Your task to perform on an android device: turn on javascript in the chrome app Image 0: 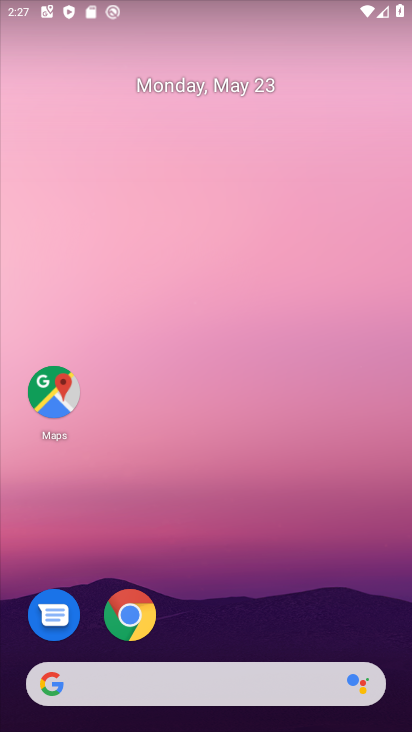
Step 0: click (135, 616)
Your task to perform on an android device: turn on javascript in the chrome app Image 1: 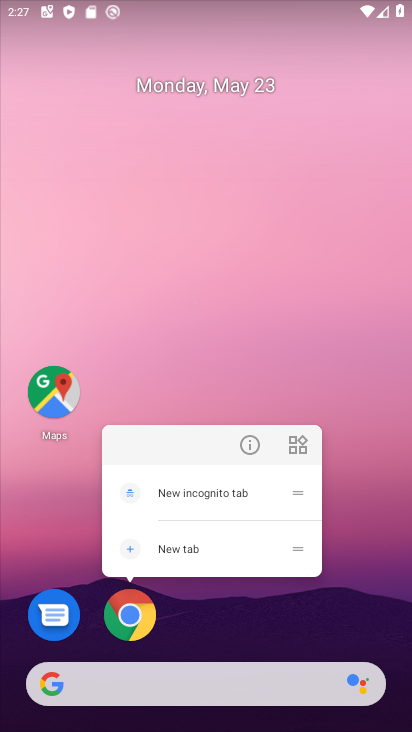
Step 1: click (129, 618)
Your task to perform on an android device: turn on javascript in the chrome app Image 2: 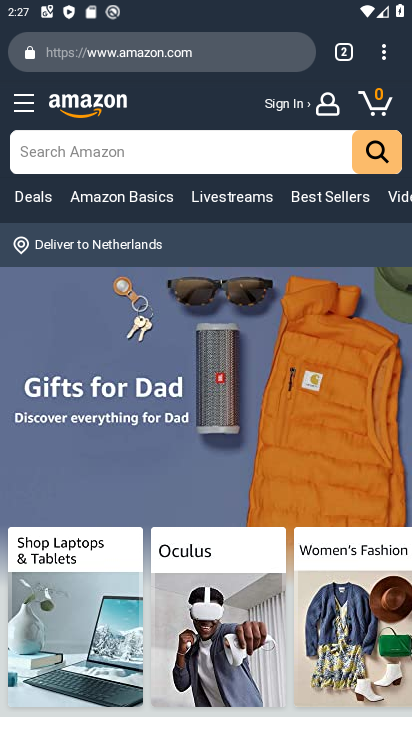
Step 2: click (385, 61)
Your task to perform on an android device: turn on javascript in the chrome app Image 3: 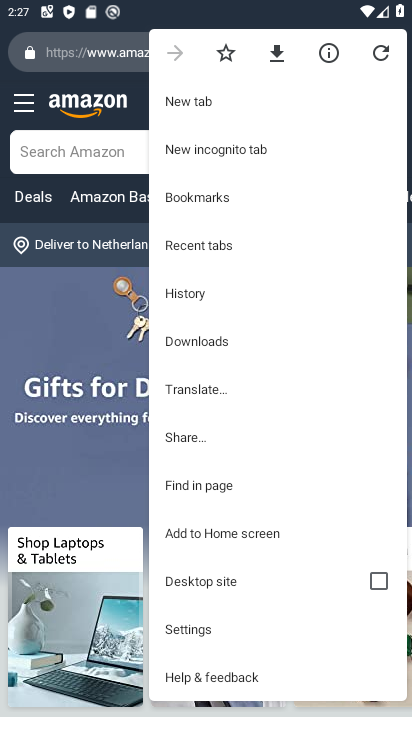
Step 3: click (196, 632)
Your task to perform on an android device: turn on javascript in the chrome app Image 4: 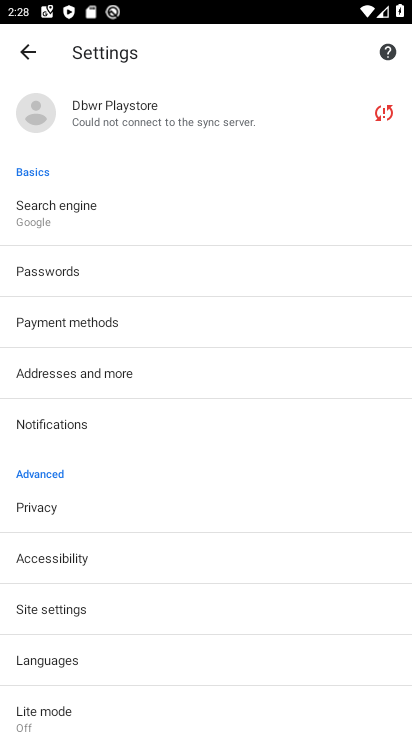
Step 4: click (72, 604)
Your task to perform on an android device: turn on javascript in the chrome app Image 5: 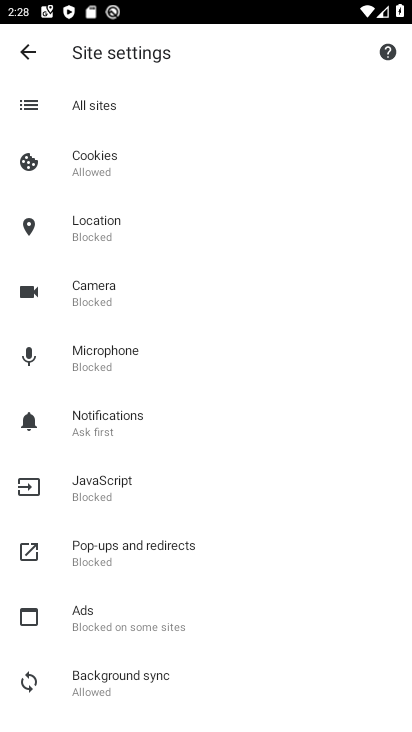
Step 5: click (108, 493)
Your task to perform on an android device: turn on javascript in the chrome app Image 6: 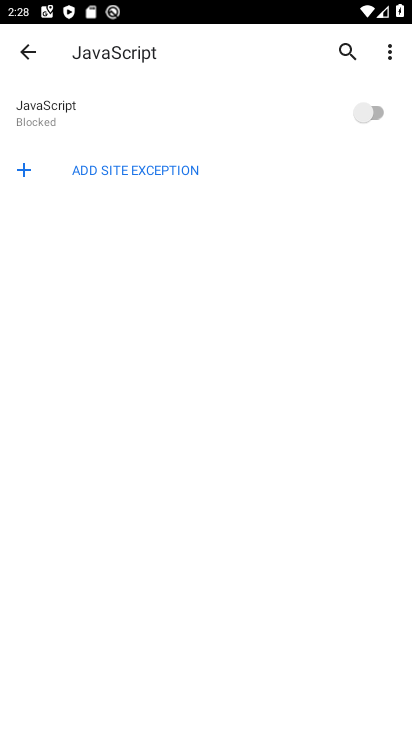
Step 6: click (363, 113)
Your task to perform on an android device: turn on javascript in the chrome app Image 7: 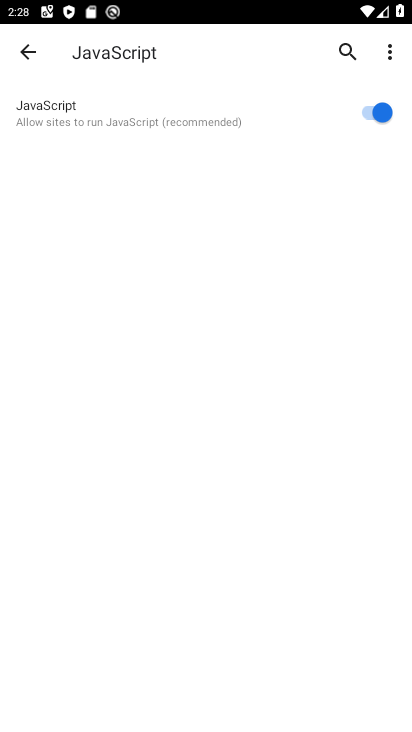
Step 7: task complete